Your task to perform on an android device: install app "DoorDash - Dasher" Image 0: 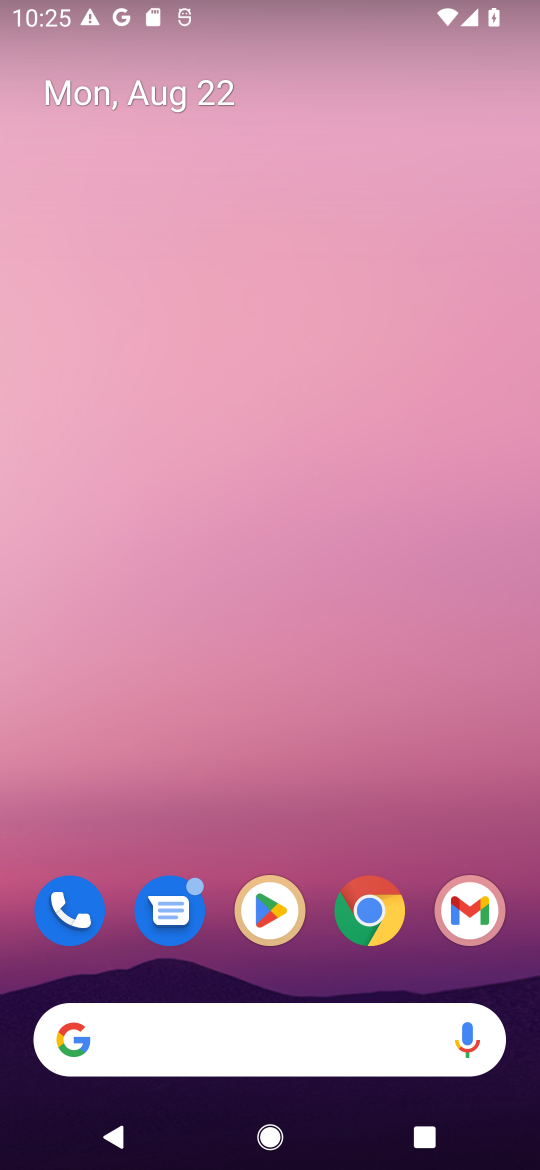
Step 0: click (285, 912)
Your task to perform on an android device: install app "DoorDash - Dasher" Image 1: 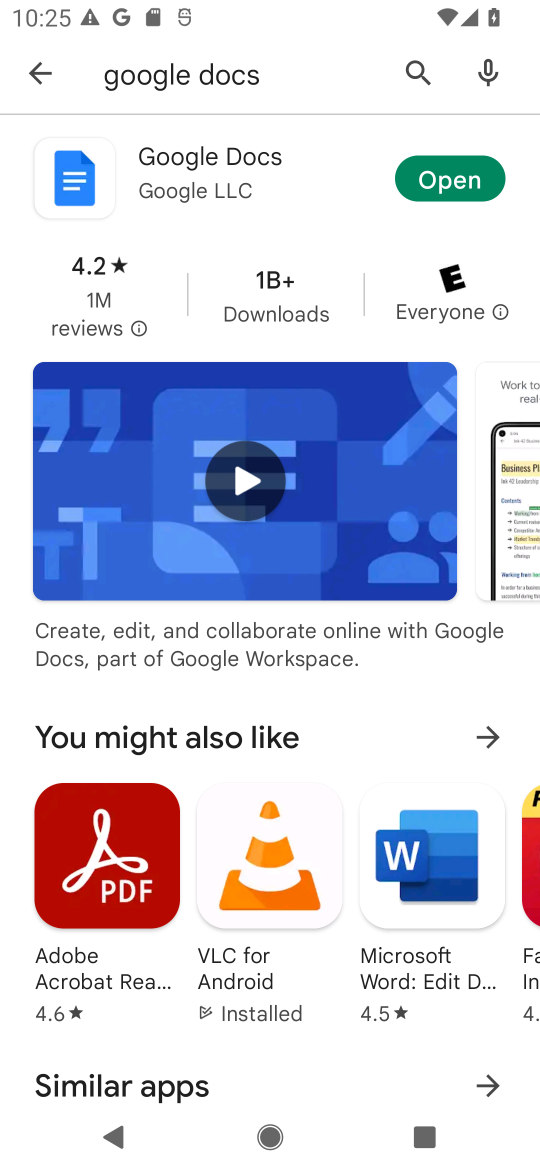
Step 1: click (415, 78)
Your task to perform on an android device: install app "DoorDash - Dasher" Image 2: 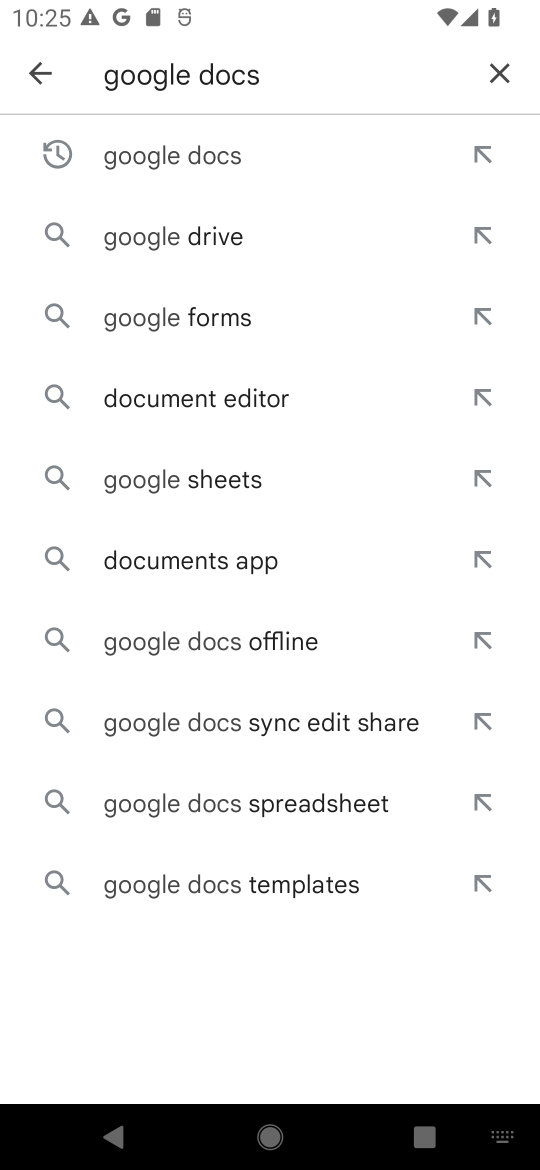
Step 2: click (509, 70)
Your task to perform on an android device: install app "DoorDash - Dasher" Image 3: 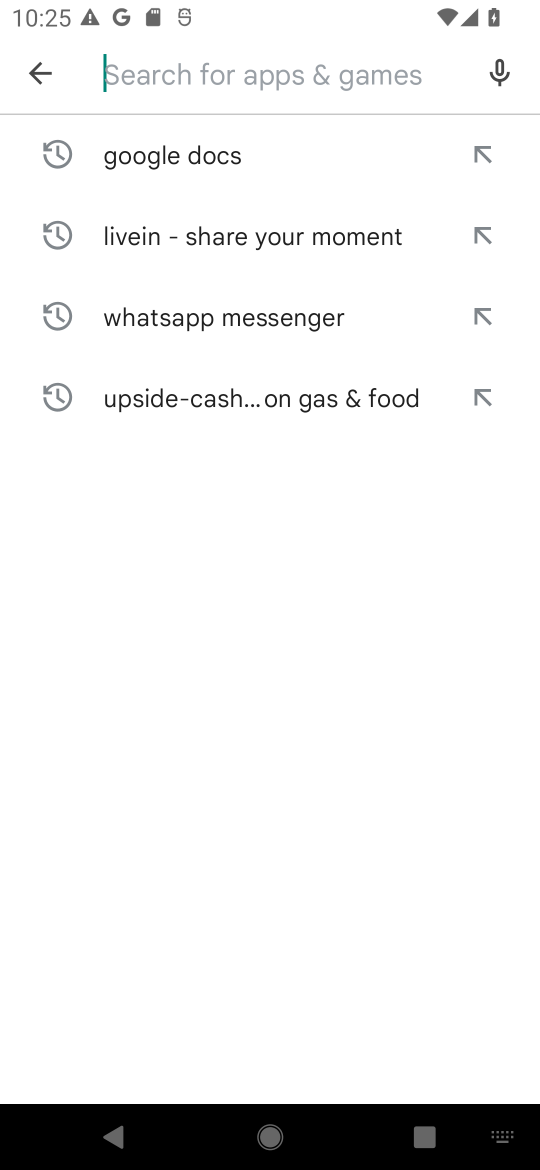
Step 3: type "DoorDash - Dasher"
Your task to perform on an android device: install app "DoorDash - Dasher" Image 4: 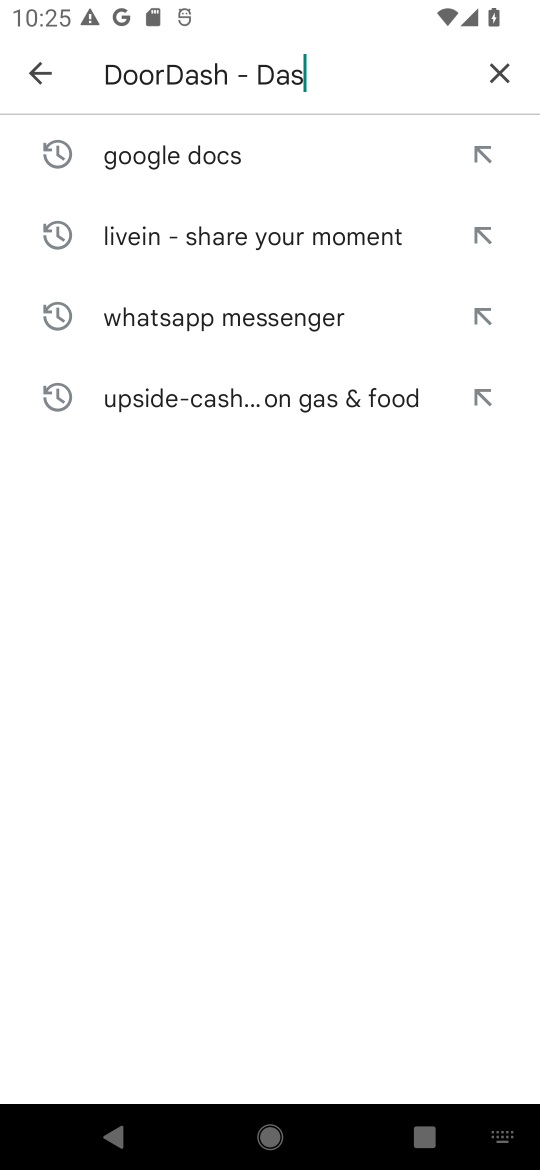
Step 4: type ""
Your task to perform on an android device: install app "DoorDash - Dasher" Image 5: 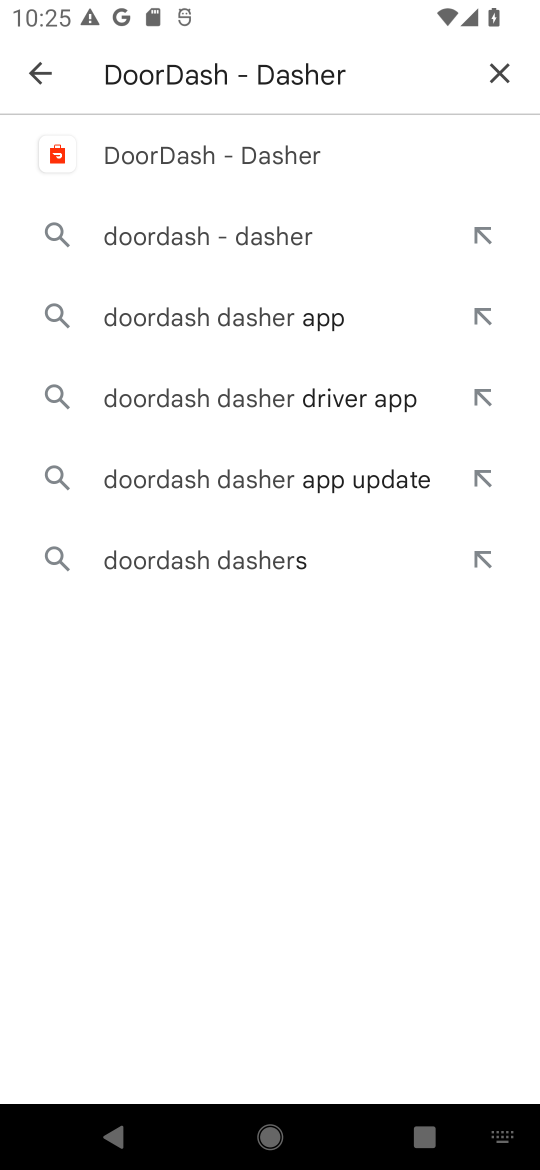
Step 5: click (254, 167)
Your task to perform on an android device: install app "DoorDash - Dasher" Image 6: 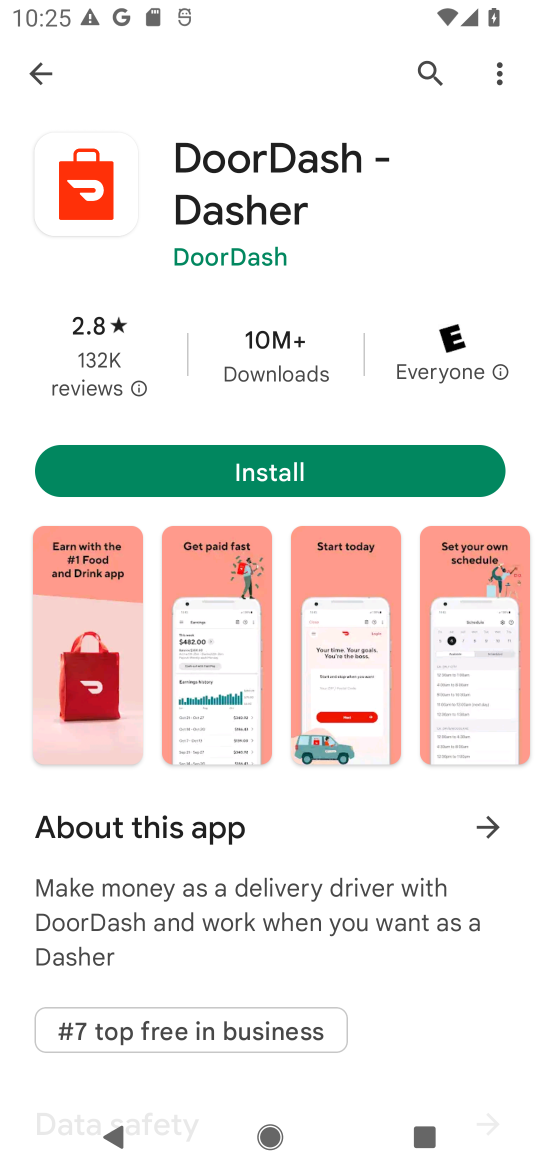
Step 6: click (316, 493)
Your task to perform on an android device: install app "DoorDash - Dasher" Image 7: 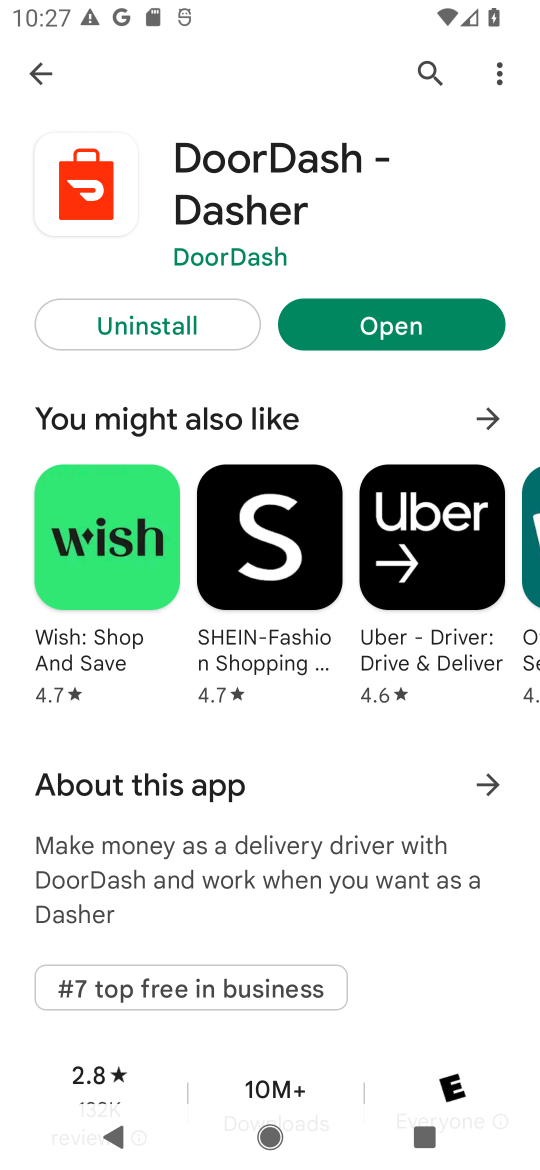
Step 7: click (434, 80)
Your task to perform on an android device: install app "DoorDash - Dasher" Image 8: 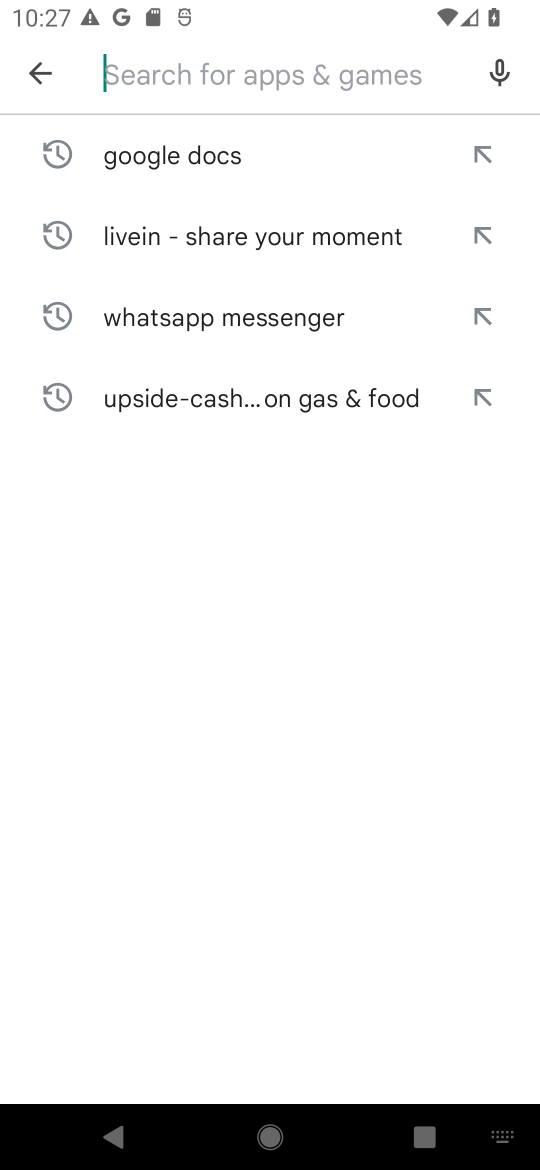
Step 8: type "DoorDash - Dasher"
Your task to perform on an android device: install app "DoorDash - Dasher" Image 9: 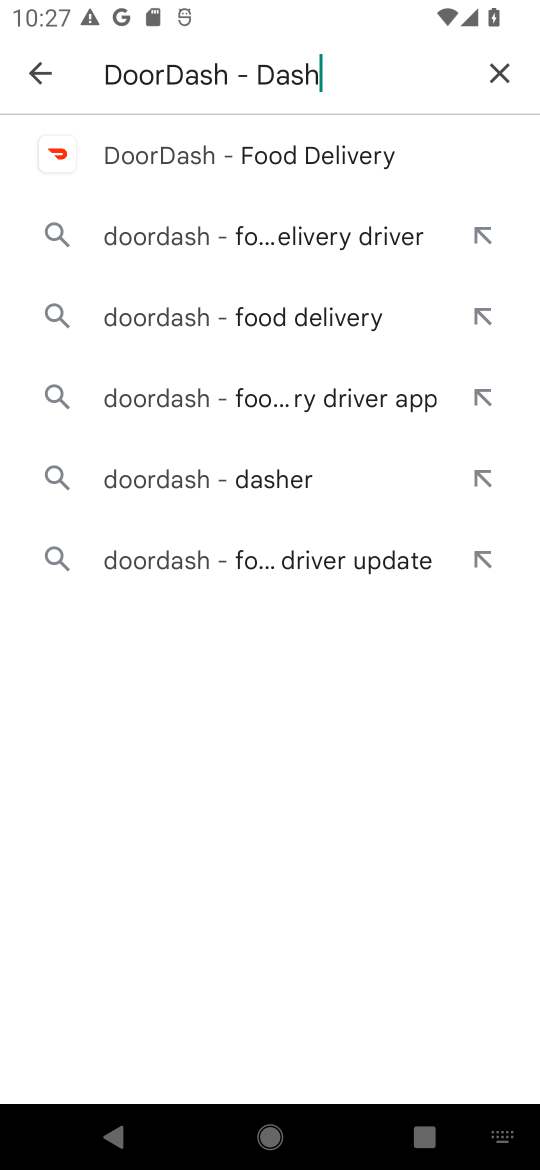
Step 9: type ""
Your task to perform on an android device: install app "DoorDash - Dasher" Image 10: 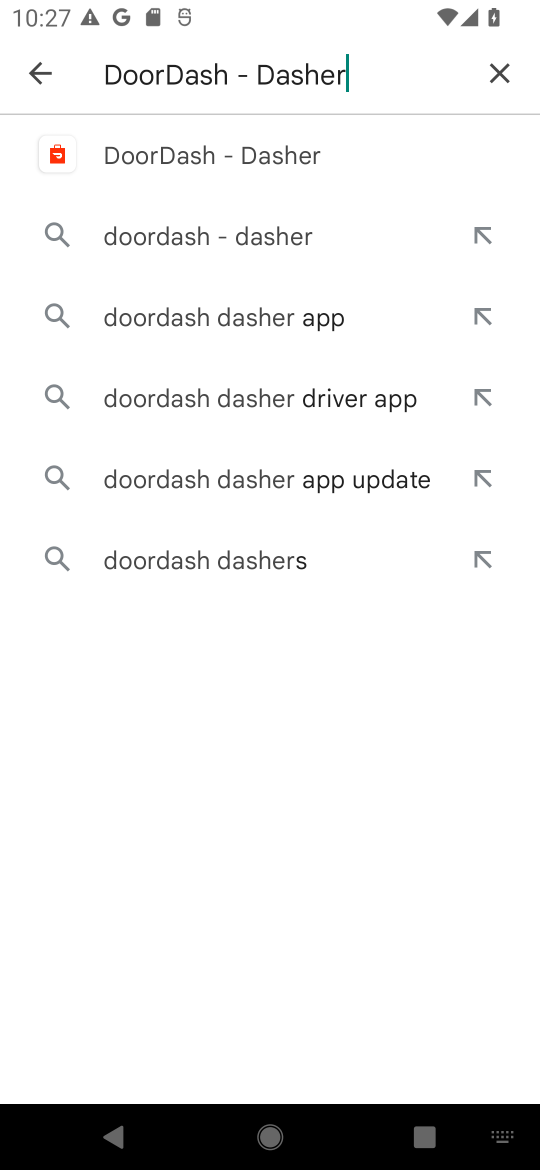
Step 10: click (200, 165)
Your task to perform on an android device: install app "DoorDash - Dasher" Image 11: 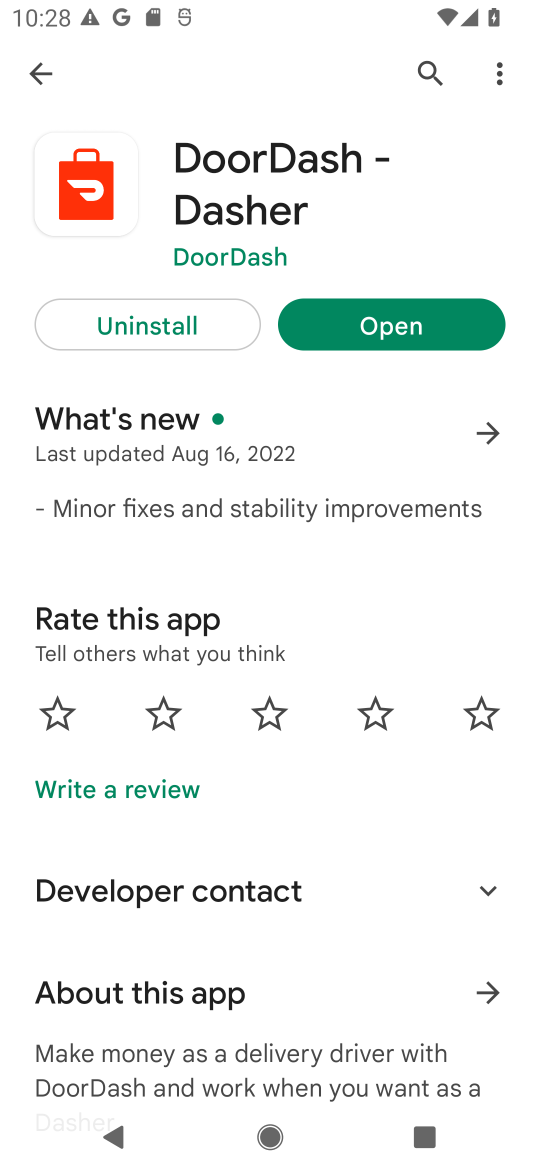
Step 11: task complete